Your task to perform on an android device: turn off airplane mode Image 0: 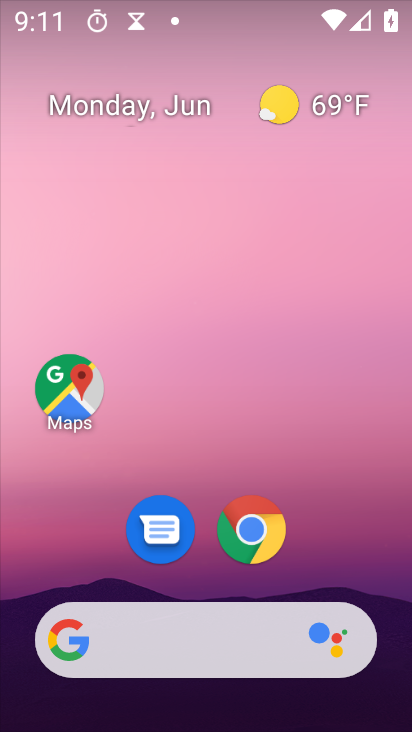
Step 0: drag from (316, 524) to (233, 43)
Your task to perform on an android device: turn off airplane mode Image 1: 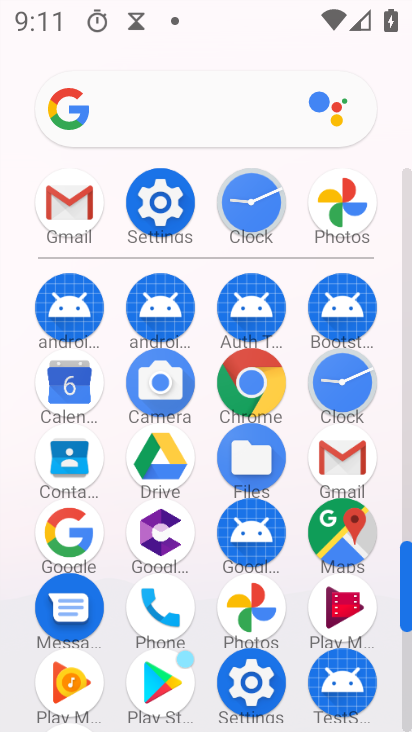
Step 1: click (153, 221)
Your task to perform on an android device: turn off airplane mode Image 2: 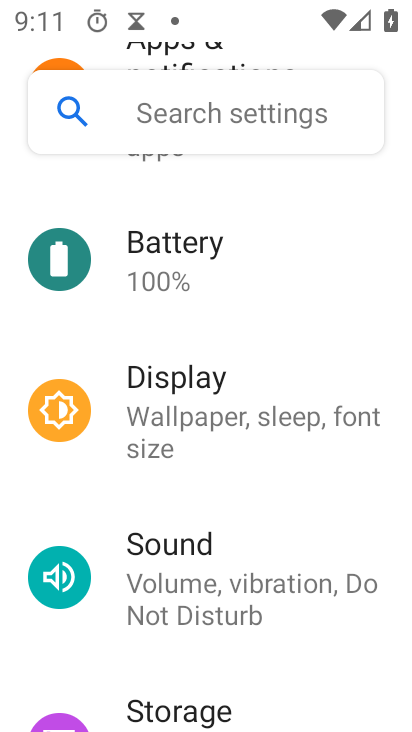
Step 2: drag from (293, 226) to (263, 661)
Your task to perform on an android device: turn off airplane mode Image 3: 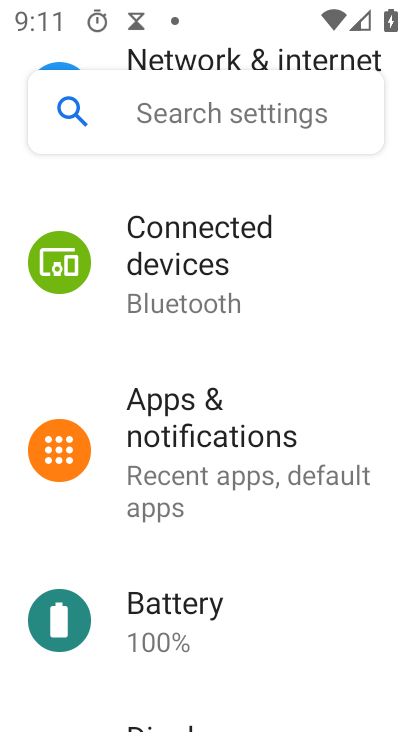
Step 3: drag from (331, 226) to (299, 631)
Your task to perform on an android device: turn off airplane mode Image 4: 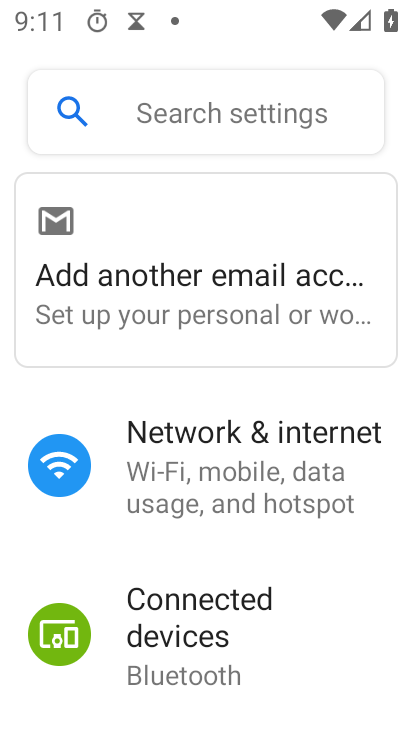
Step 4: click (292, 469)
Your task to perform on an android device: turn off airplane mode Image 5: 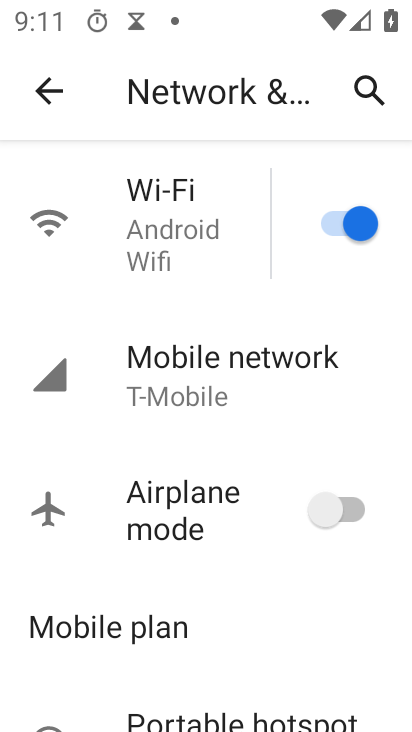
Step 5: click (317, 511)
Your task to perform on an android device: turn off airplane mode Image 6: 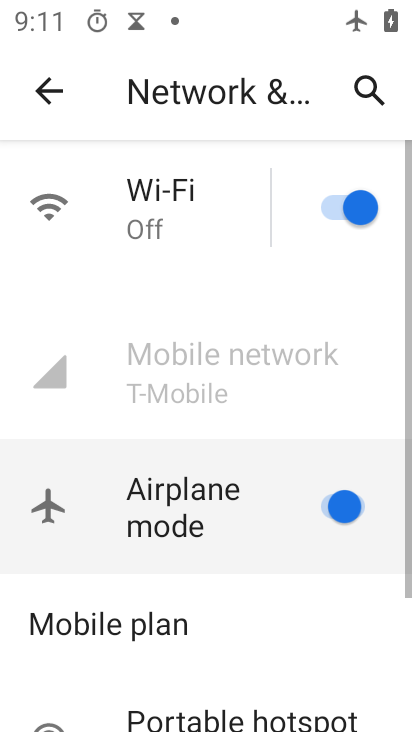
Step 6: click (317, 511)
Your task to perform on an android device: turn off airplane mode Image 7: 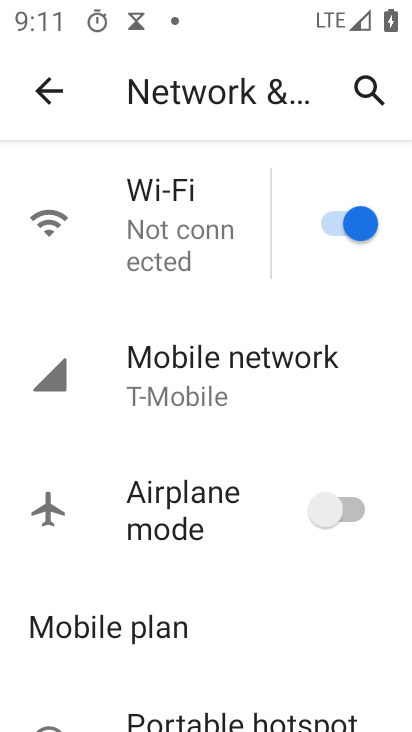
Step 7: task complete